Your task to perform on an android device: turn off smart reply in the gmail app Image 0: 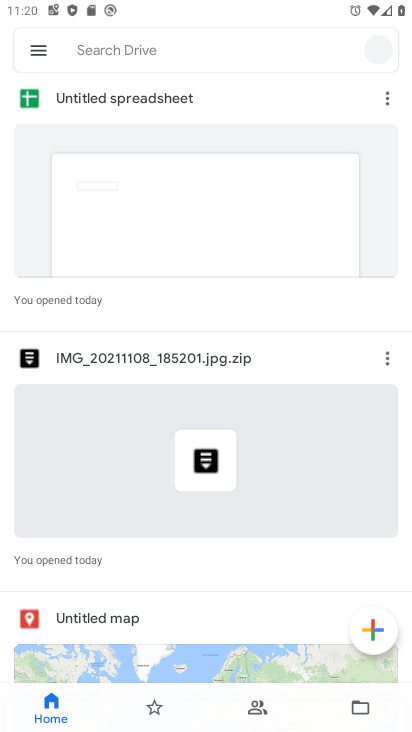
Step 0: press home button
Your task to perform on an android device: turn off smart reply in the gmail app Image 1: 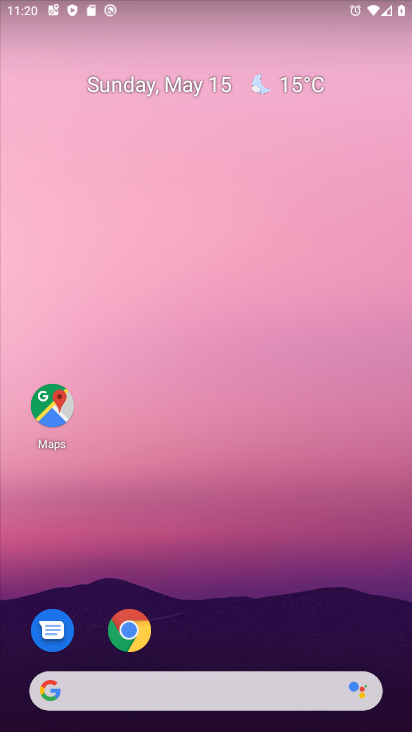
Step 1: drag from (218, 729) to (223, 65)
Your task to perform on an android device: turn off smart reply in the gmail app Image 2: 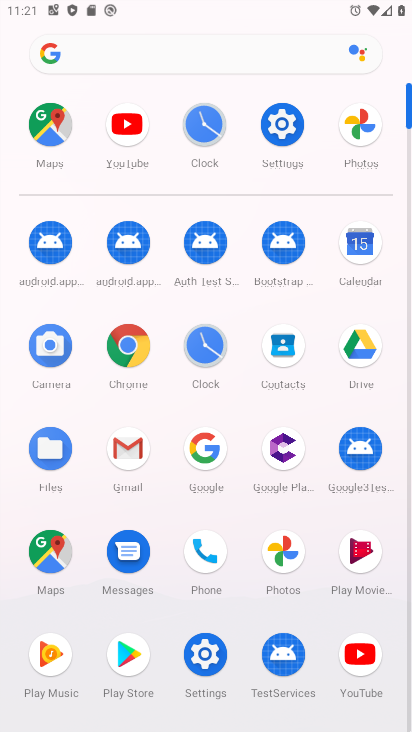
Step 2: click (124, 441)
Your task to perform on an android device: turn off smart reply in the gmail app Image 3: 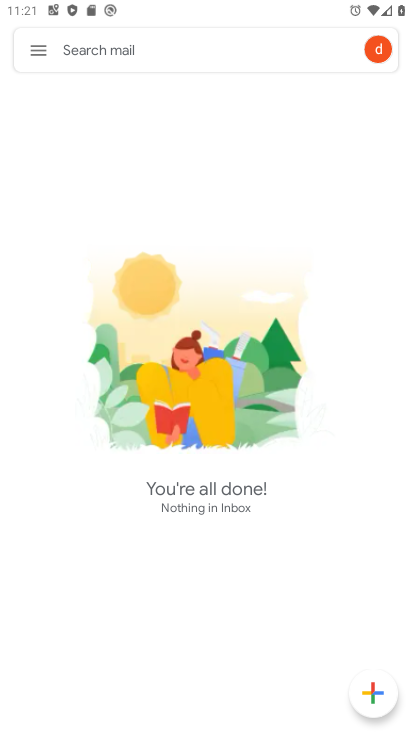
Step 3: click (32, 45)
Your task to perform on an android device: turn off smart reply in the gmail app Image 4: 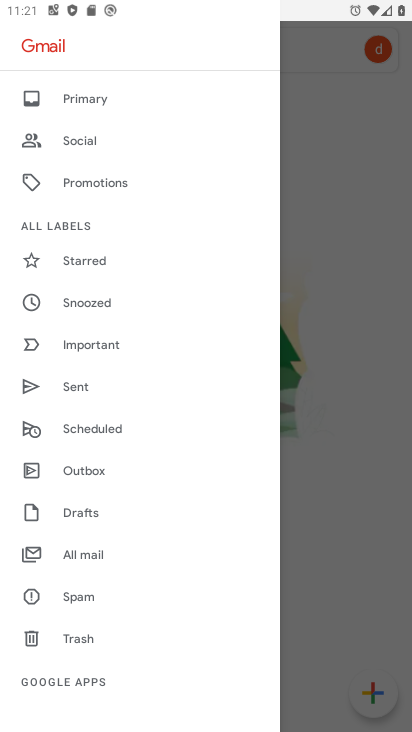
Step 4: drag from (28, 650) to (56, 89)
Your task to perform on an android device: turn off smart reply in the gmail app Image 5: 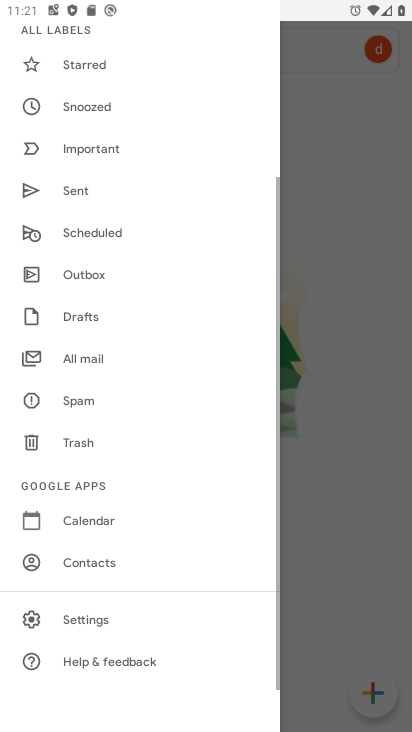
Step 5: click (84, 611)
Your task to perform on an android device: turn off smart reply in the gmail app Image 6: 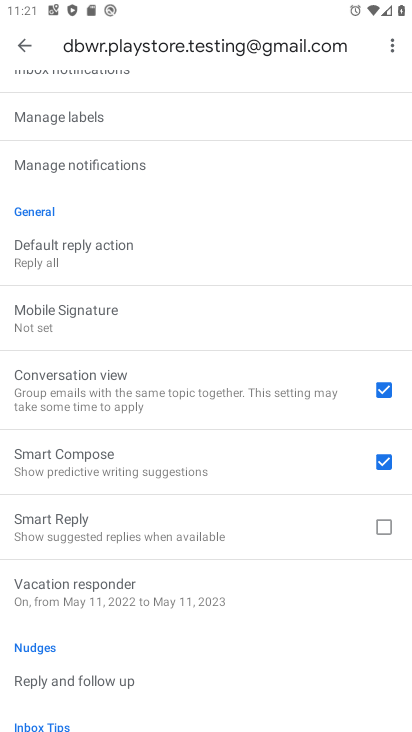
Step 6: task complete